Your task to perform on an android device: Open privacy settings Image 0: 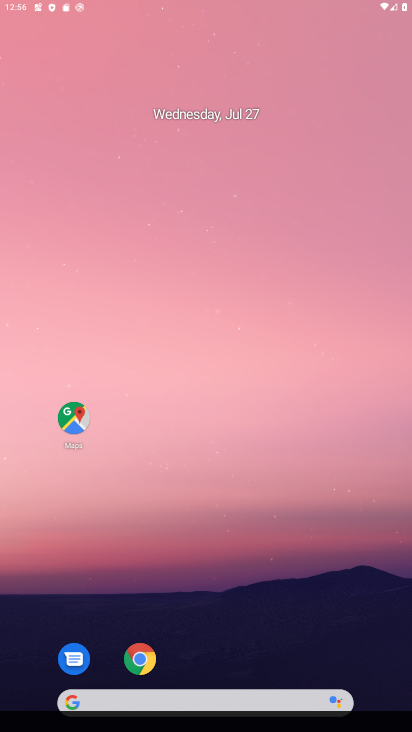
Step 0: press home button
Your task to perform on an android device: Open privacy settings Image 1: 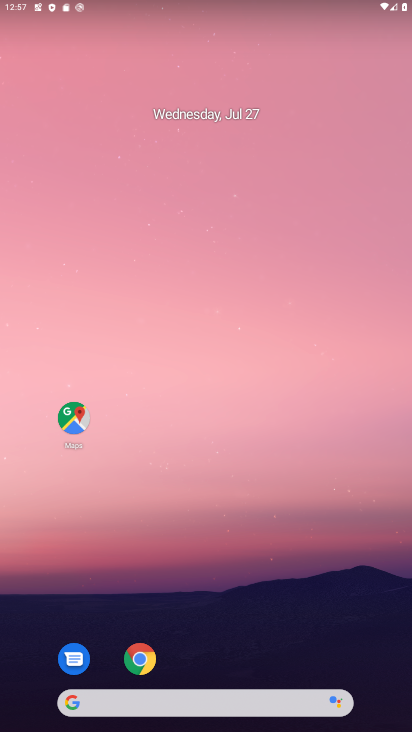
Step 1: drag from (213, 665) to (200, 81)
Your task to perform on an android device: Open privacy settings Image 2: 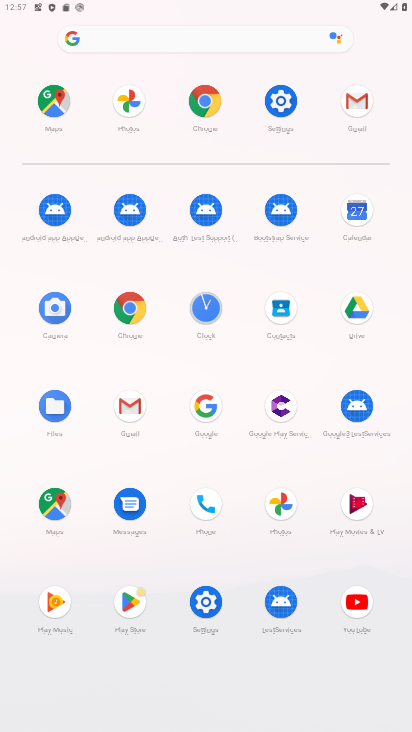
Step 2: click (276, 96)
Your task to perform on an android device: Open privacy settings Image 3: 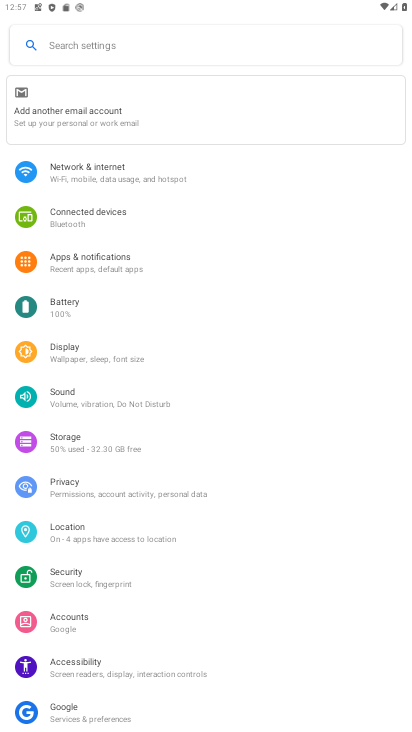
Step 3: click (92, 478)
Your task to perform on an android device: Open privacy settings Image 4: 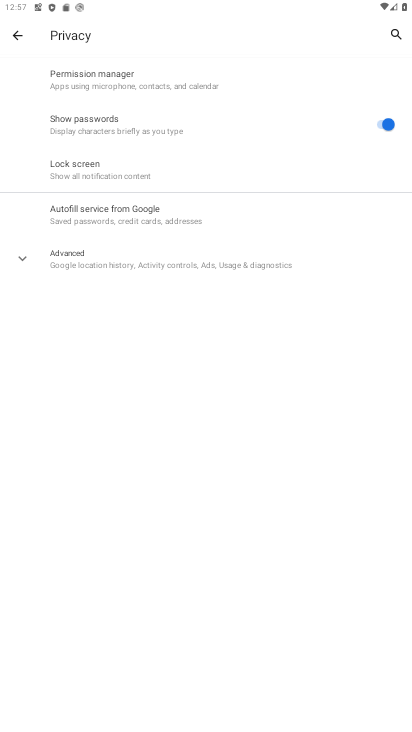
Step 4: click (20, 255)
Your task to perform on an android device: Open privacy settings Image 5: 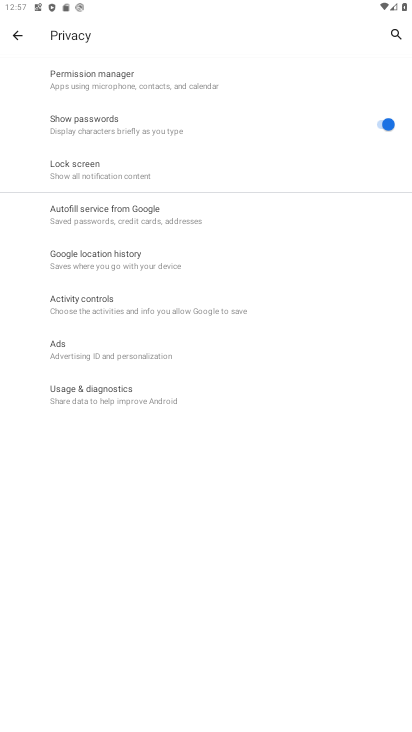
Step 5: task complete